Your task to perform on an android device: search for starred emails in the gmail app Image 0: 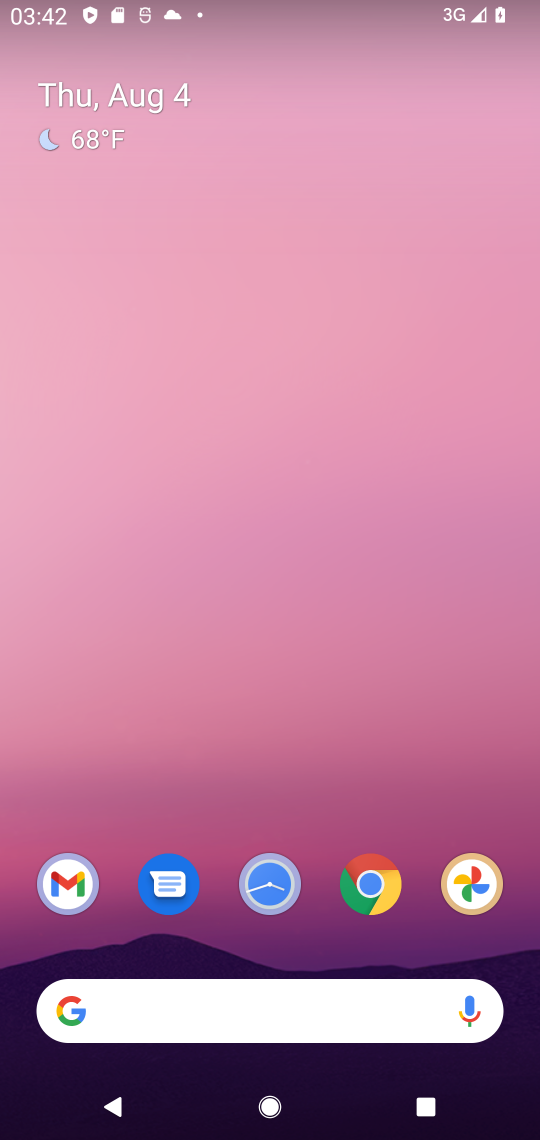
Step 0: press home button
Your task to perform on an android device: search for starred emails in the gmail app Image 1: 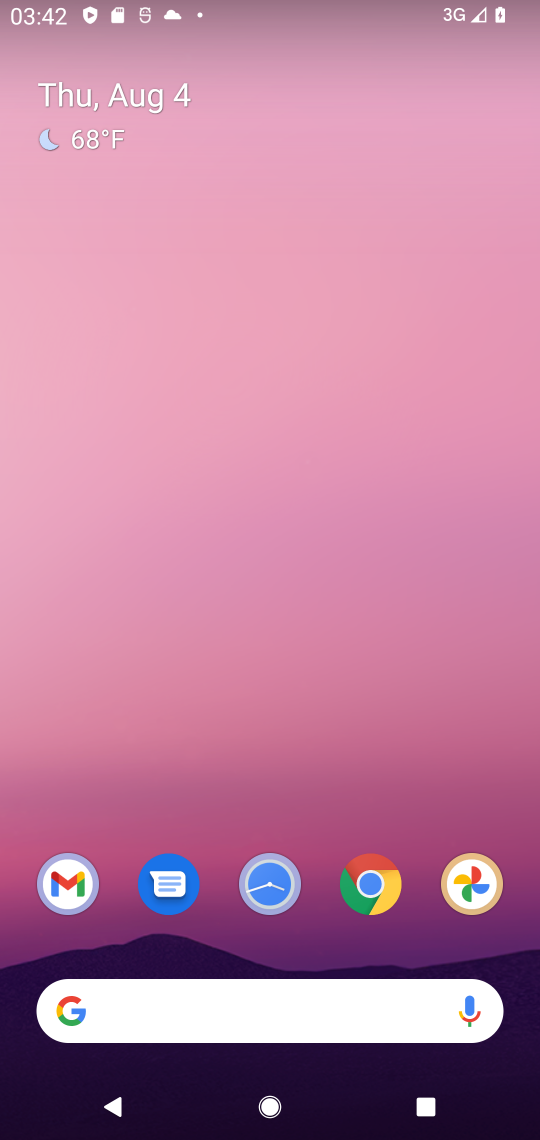
Step 1: drag from (314, 949) to (360, 391)
Your task to perform on an android device: search for starred emails in the gmail app Image 2: 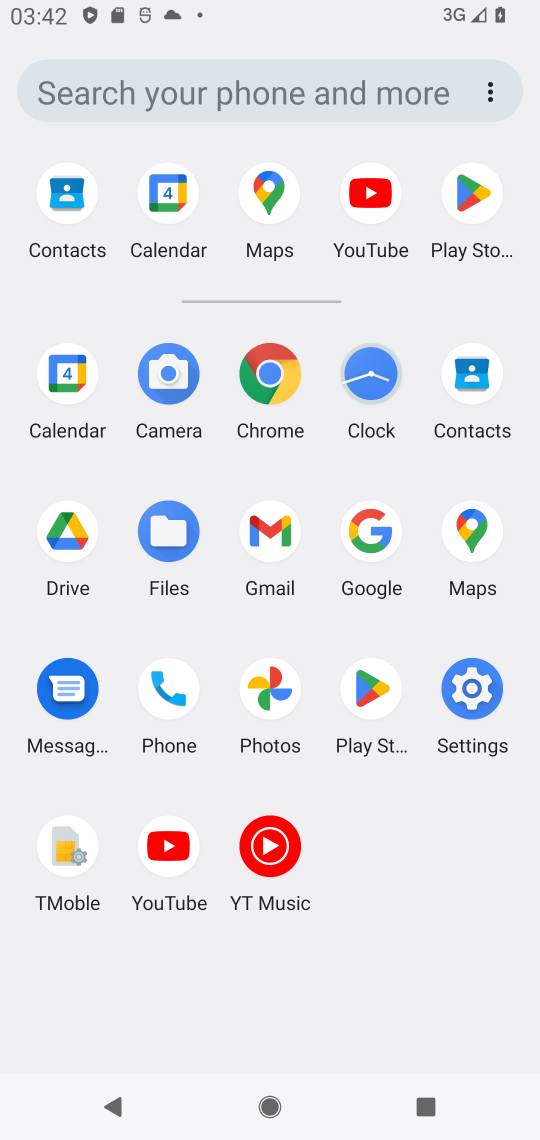
Step 2: click (268, 554)
Your task to perform on an android device: search for starred emails in the gmail app Image 3: 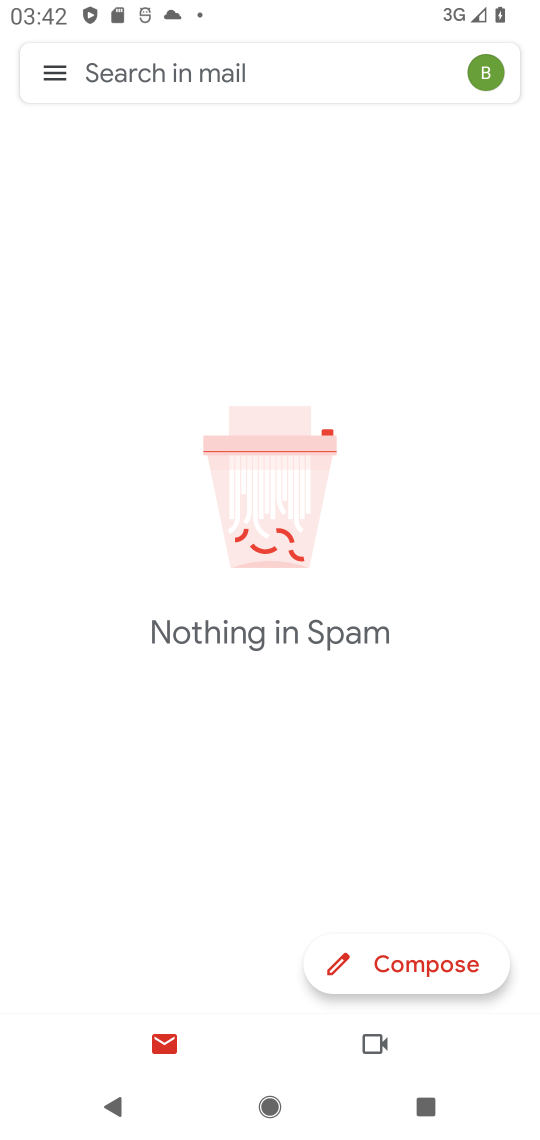
Step 3: click (54, 71)
Your task to perform on an android device: search for starred emails in the gmail app Image 4: 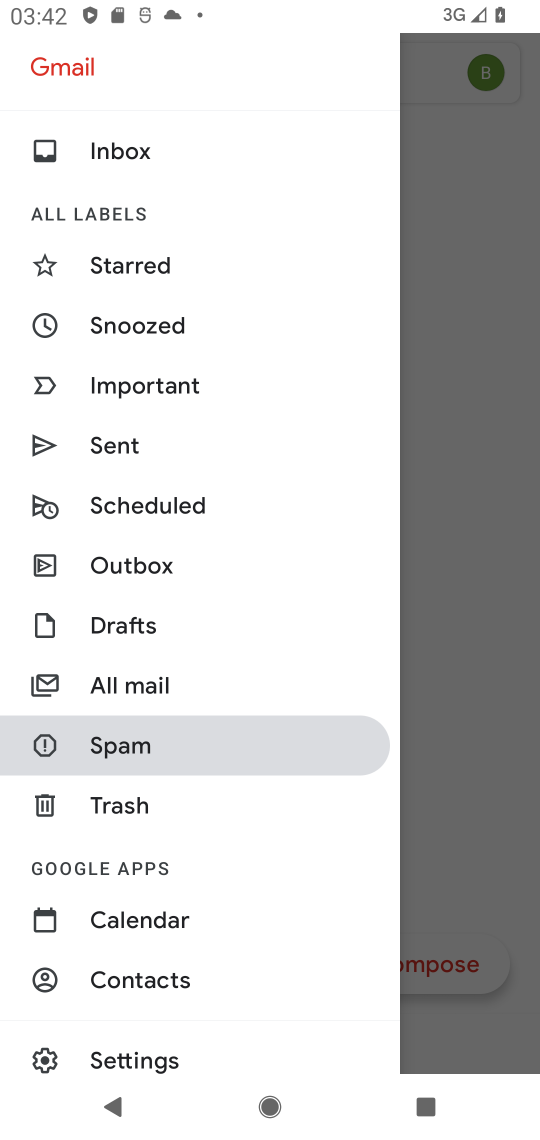
Step 4: click (172, 264)
Your task to perform on an android device: search for starred emails in the gmail app Image 5: 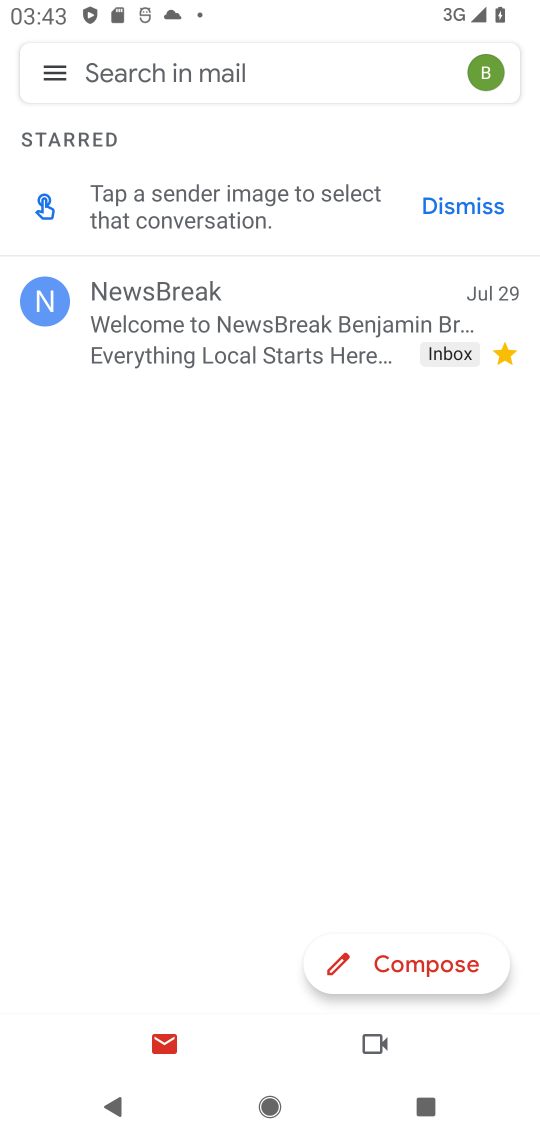
Step 5: task complete